Your task to perform on an android device: Open accessibility settings Image 0: 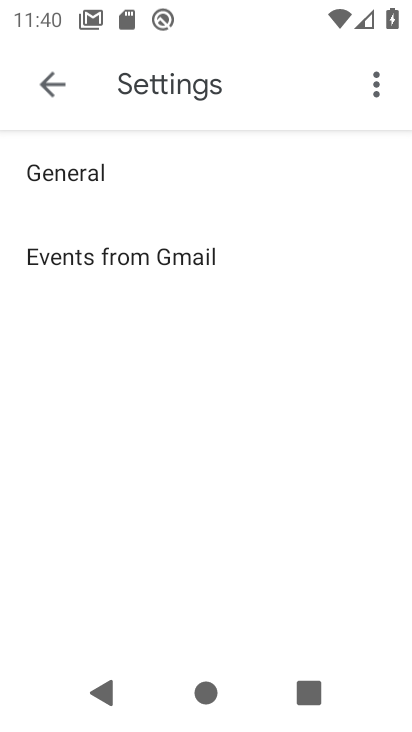
Step 0: press home button
Your task to perform on an android device: Open accessibility settings Image 1: 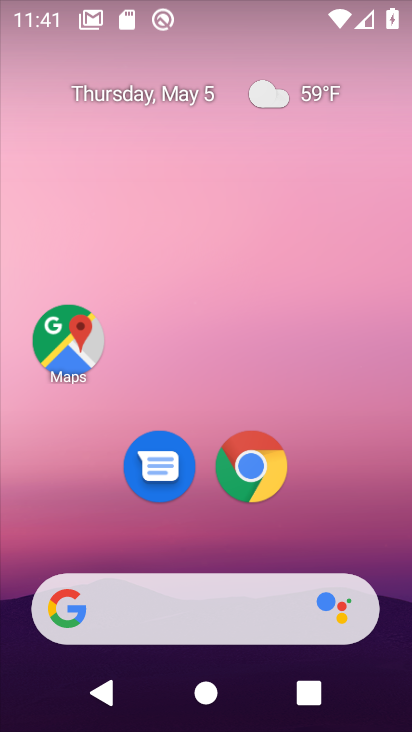
Step 1: drag from (332, 501) to (251, 83)
Your task to perform on an android device: Open accessibility settings Image 2: 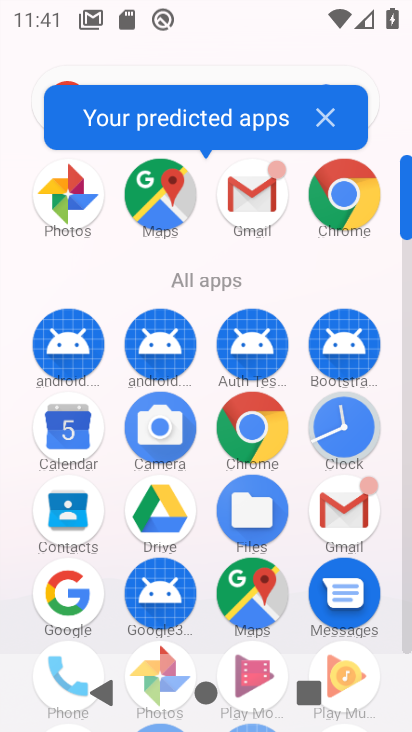
Step 2: click (409, 651)
Your task to perform on an android device: Open accessibility settings Image 3: 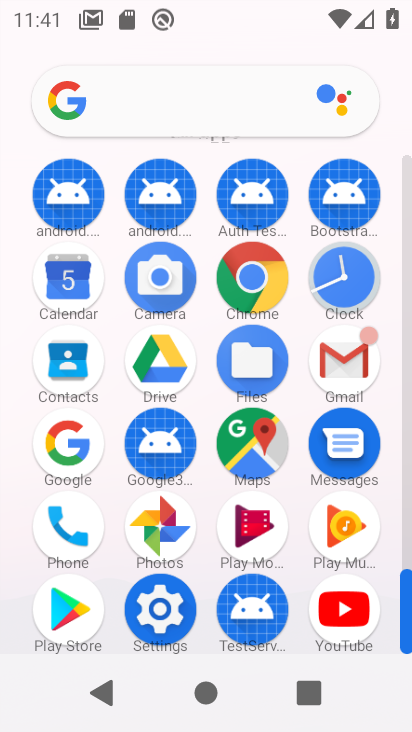
Step 3: click (157, 620)
Your task to perform on an android device: Open accessibility settings Image 4: 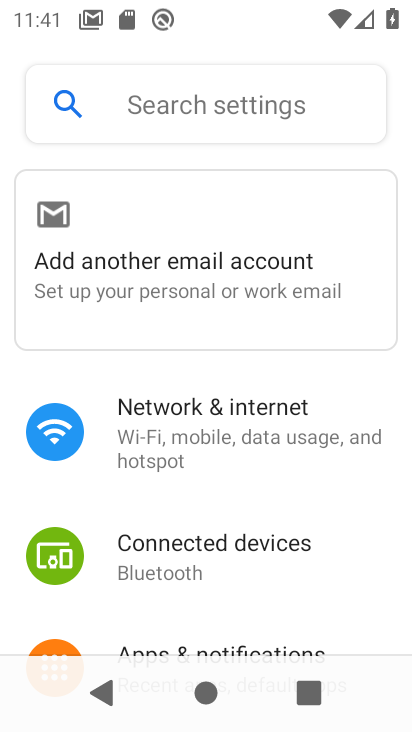
Step 4: drag from (220, 594) to (227, 131)
Your task to perform on an android device: Open accessibility settings Image 5: 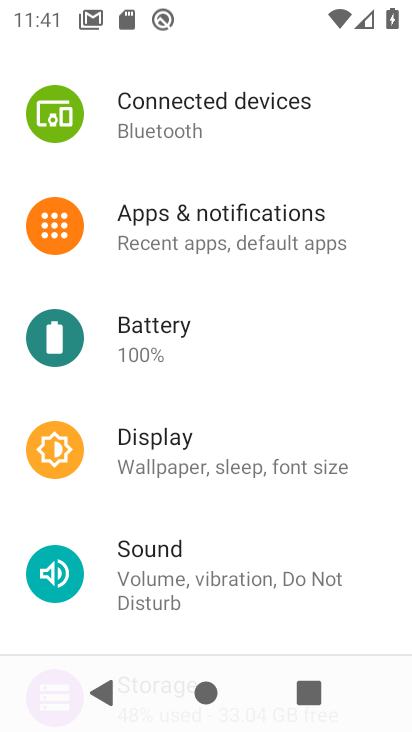
Step 5: drag from (279, 509) to (290, 89)
Your task to perform on an android device: Open accessibility settings Image 6: 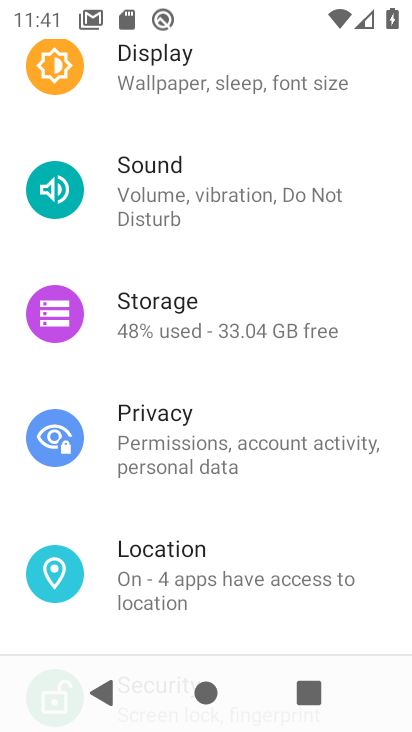
Step 6: drag from (299, 523) to (264, 71)
Your task to perform on an android device: Open accessibility settings Image 7: 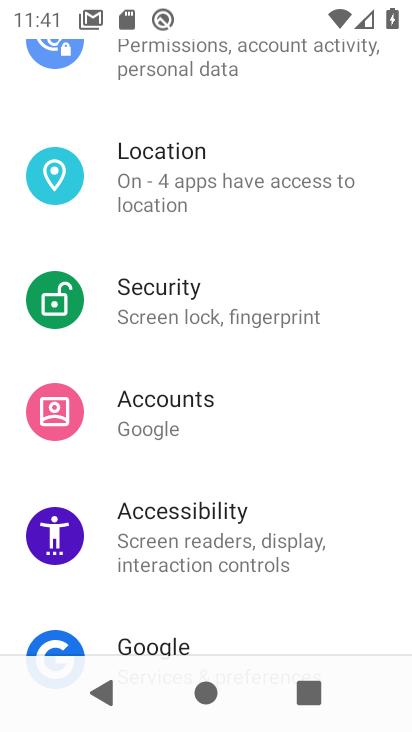
Step 7: click (266, 530)
Your task to perform on an android device: Open accessibility settings Image 8: 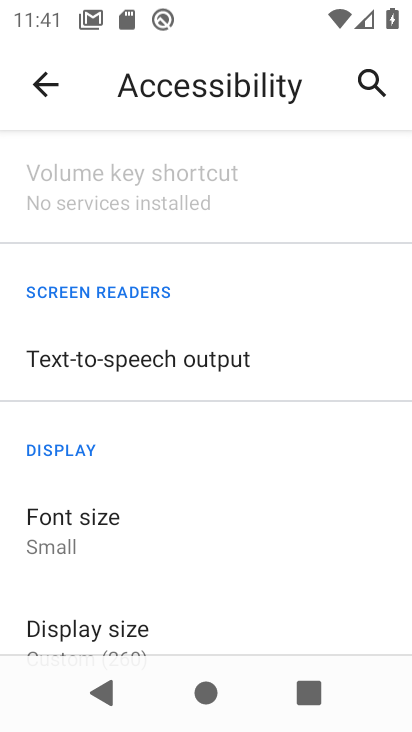
Step 8: task complete